Your task to perform on an android device: snooze an email in the gmail app Image 0: 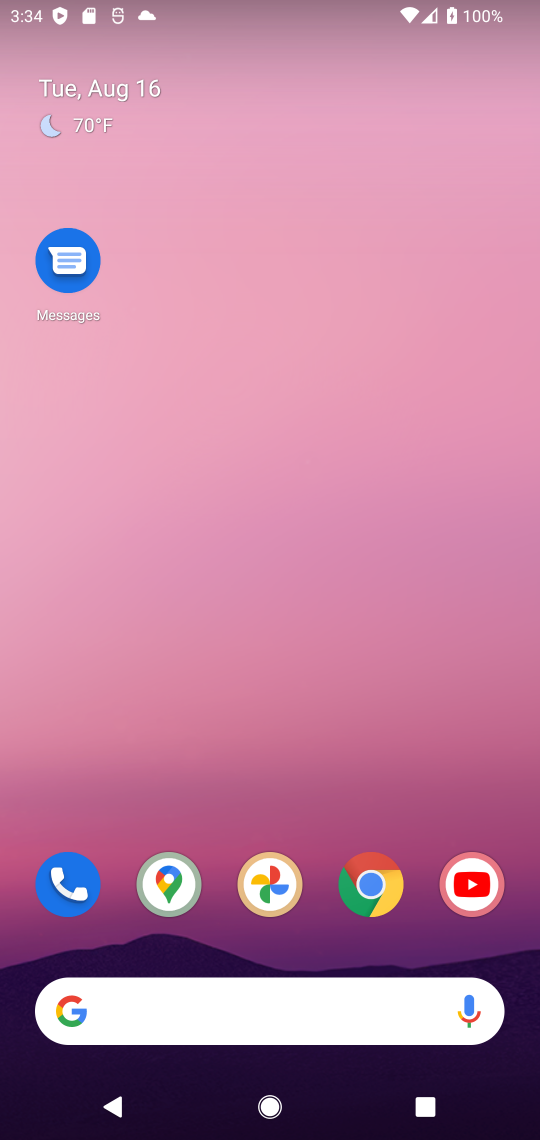
Step 0: drag from (24, 1068) to (295, 419)
Your task to perform on an android device: snooze an email in the gmail app Image 1: 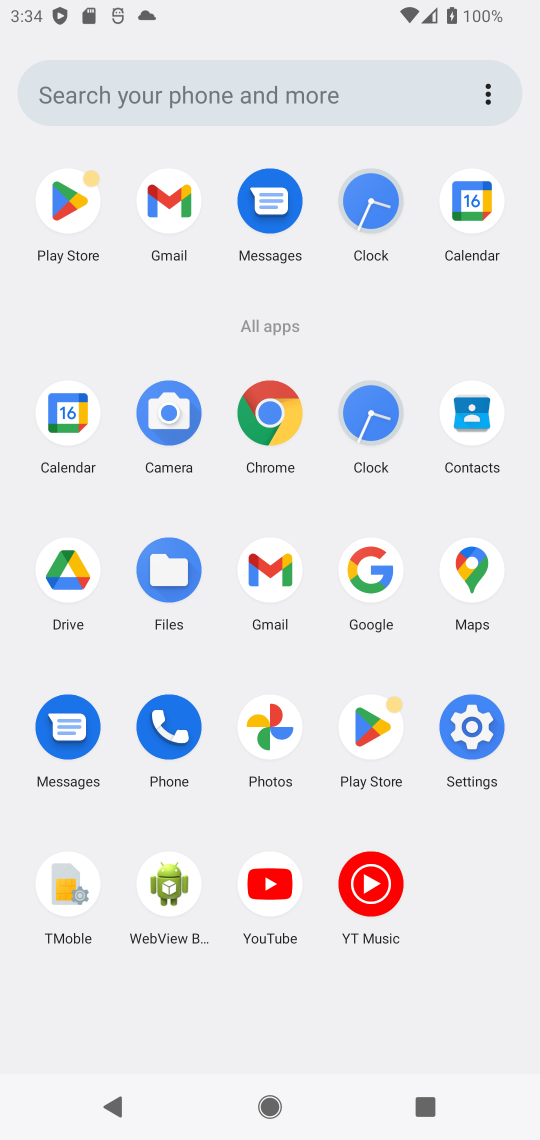
Step 1: click (283, 585)
Your task to perform on an android device: snooze an email in the gmail app Image 2: 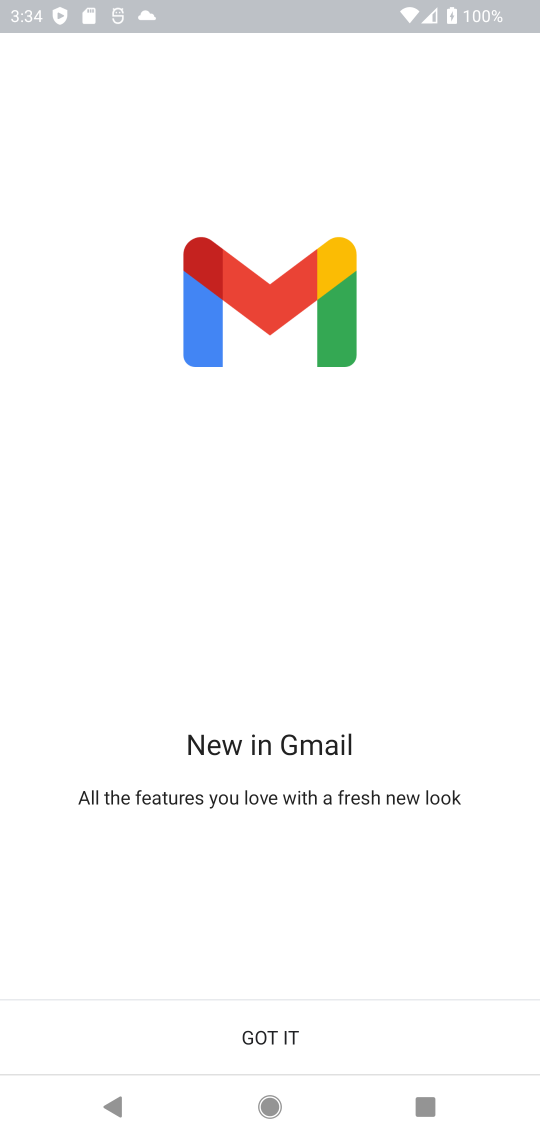
Step 2: click (234, 1044)
Your task to perform on an android device: snooze an email in the gmail app Image 3: 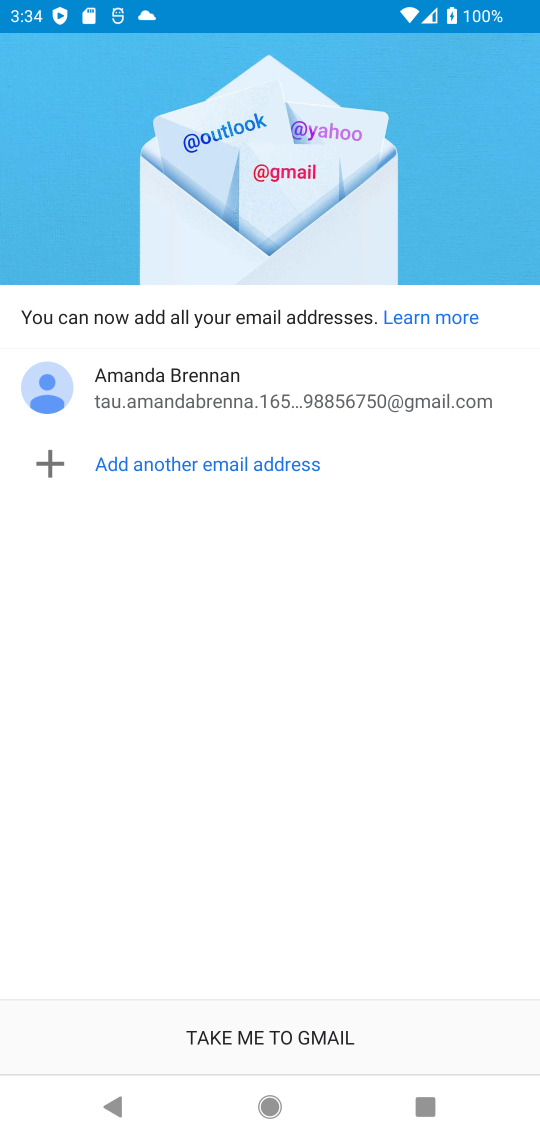
Step 3: click (260, 1043)
Your task to perform on an android device: snooze an email in the gmail app Image 4: 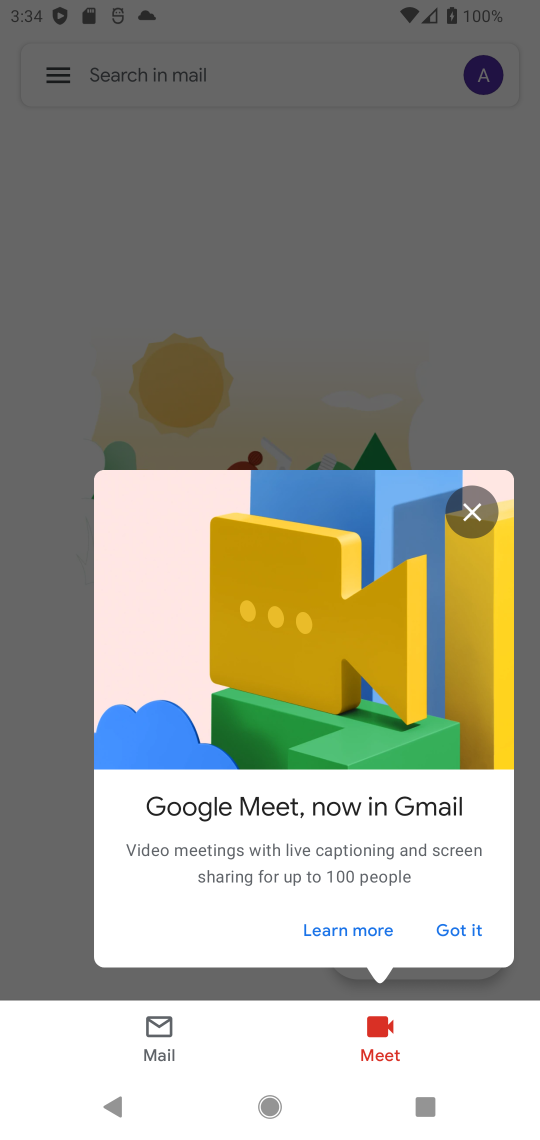
Step 4: click (442, 916)
Your task to perform on an android device: snooze an email in the gmail app Image 5: 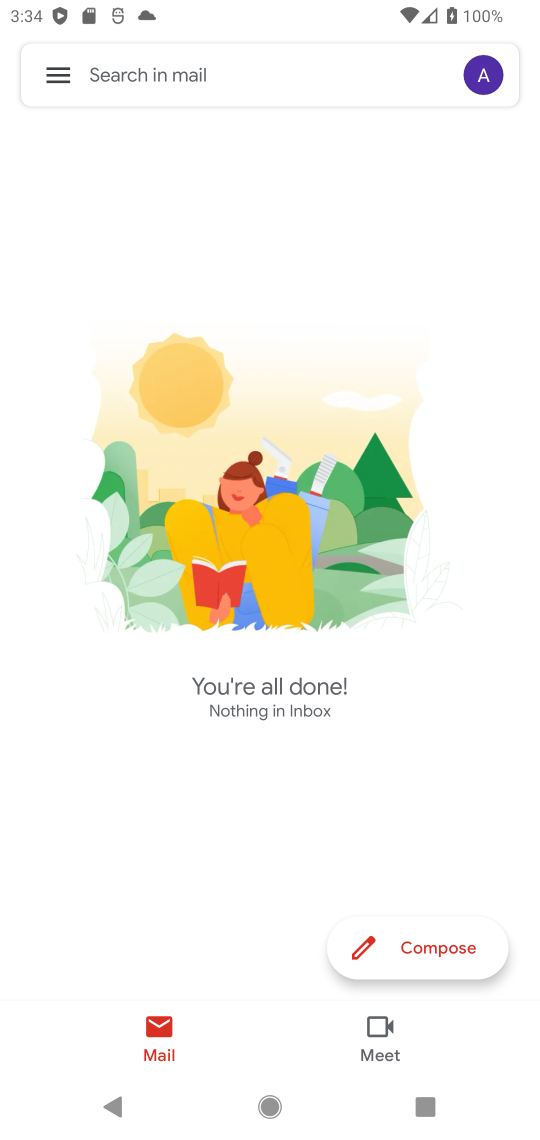
Step 5: click (58, 81)
Your task to perform on an android device: snooze an email in the gmail app Image 6: 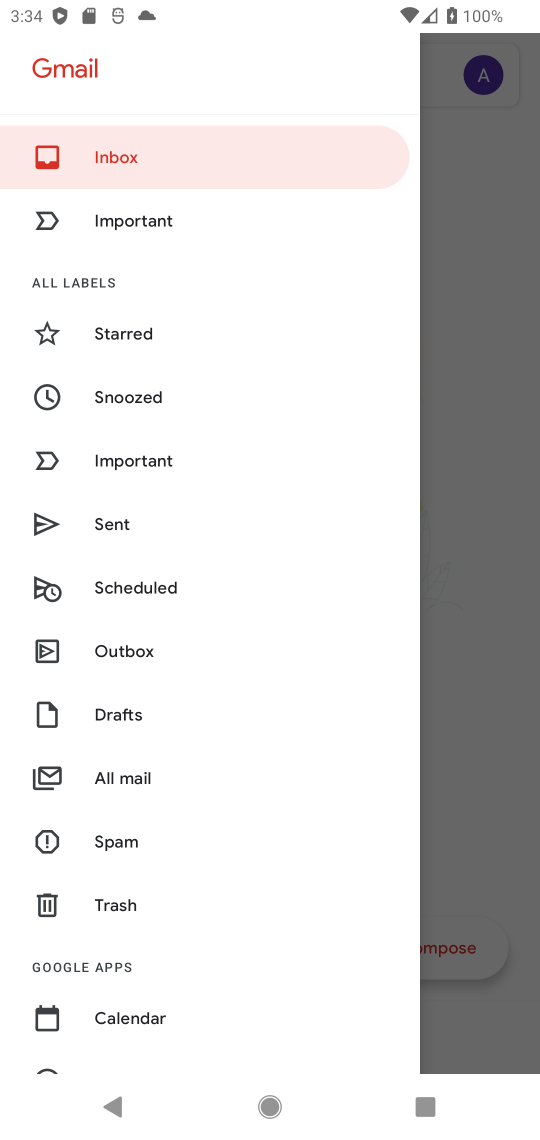
Step 6: click (119, 405)
Your task to perform on an android device: snooze an email in the gmail app Image 7: 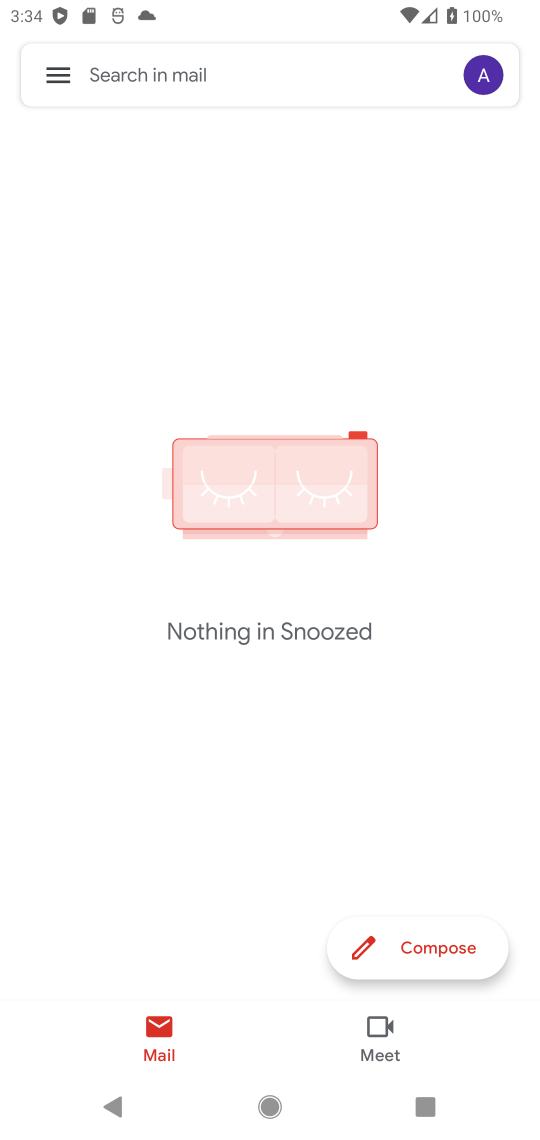
Step 7: task complete